Your task to perform on an android device: Set the phone to "Do not disturb". Image 0: 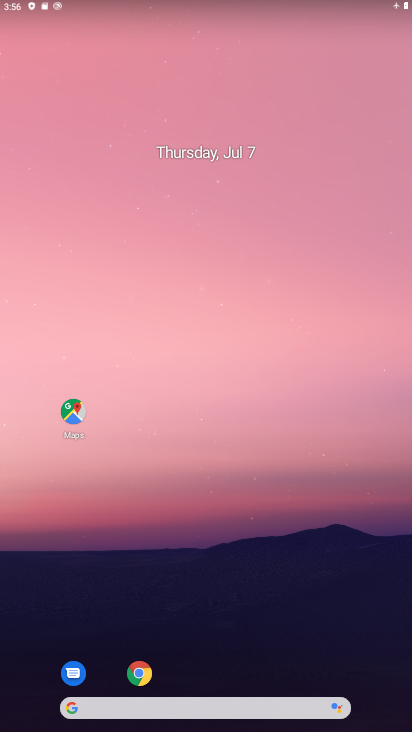
Step 0: drag from (185, 0) to (218, 436)
Your task to perform on an android device: Set the phone to "Do not disturb". Image 1: 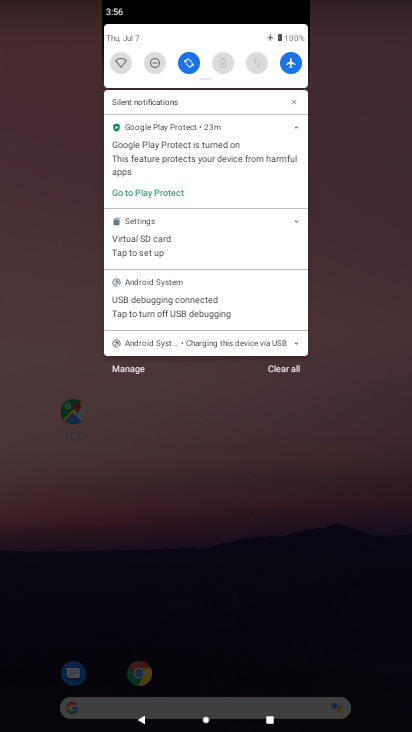
Step 1: click (157, 62)
Your task to perform on an android device: Set the phone to "Do not disturb". Image 2: 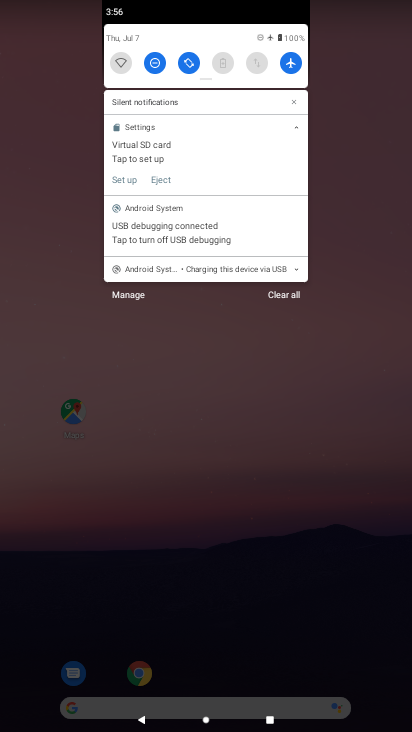
Step 2: task complete